Your task to perform on an android device: Show me the alarms in the clock app Image 0: 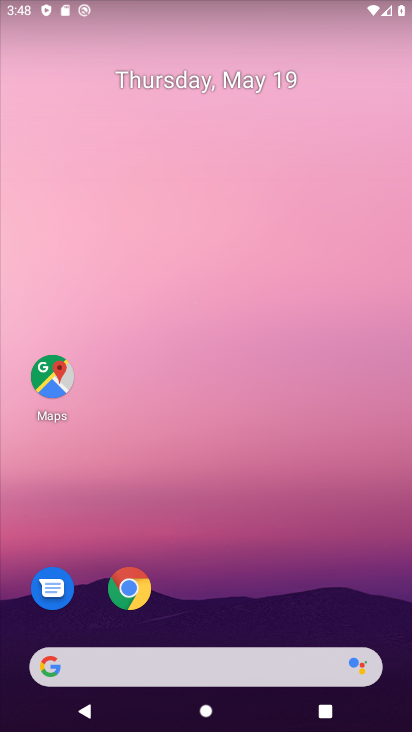
Step 0: drag from (202, 615) to (303, 89)
Your task to perform on an android device: Show me the alarms in the clock app Image 1: 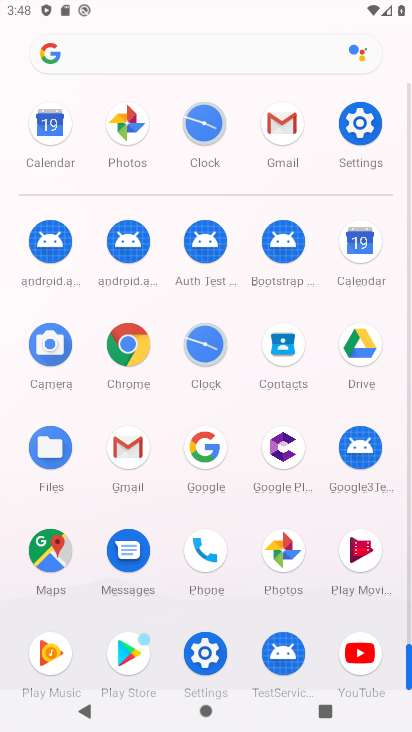
Step 1: click (204, 357)
Your task to perform on an android device: Show me the alarms in the clock app Image 2: 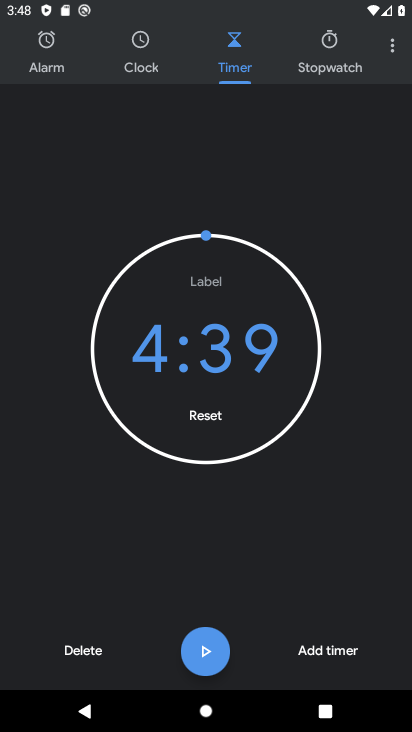
Step 2: click (62, 55)
Your task to perform on an android device: Show me the alarms in the clock app Image 3: 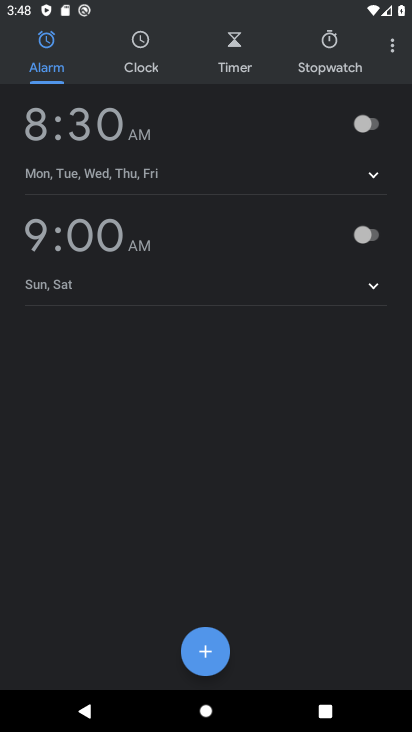
Step 3: task complete